Your task to perform on an android device: change text size in settings app Image 0: 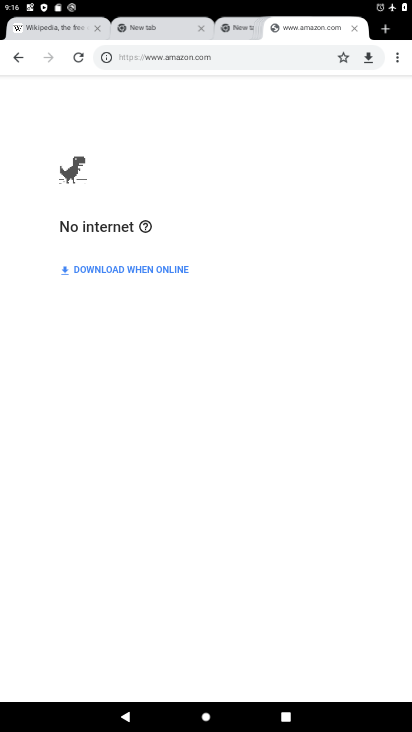
Step 0: press home button
Your task to perform on an android device: change text size in settings app Image 1: 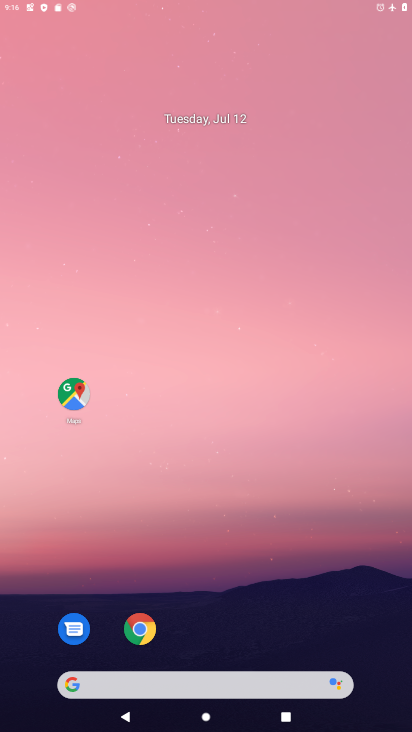
Step 1: drag from (243, 653) to (233, 252)
Your task to perform on an android device: change text size in settings app Image 2: 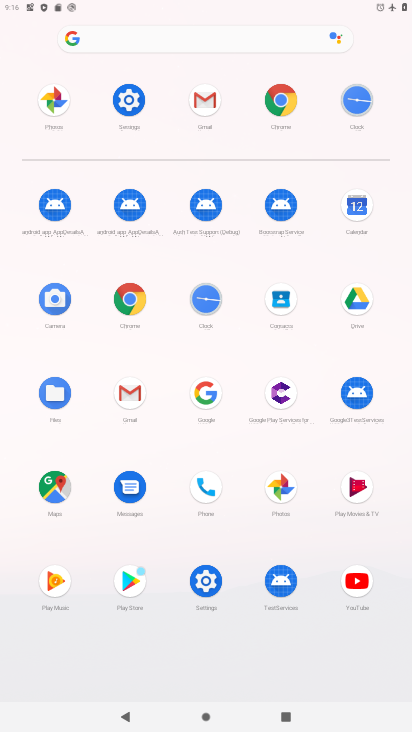
Step 2: click (127, 94)
Your task to perform on an android device: change text size in settings app Image 3: 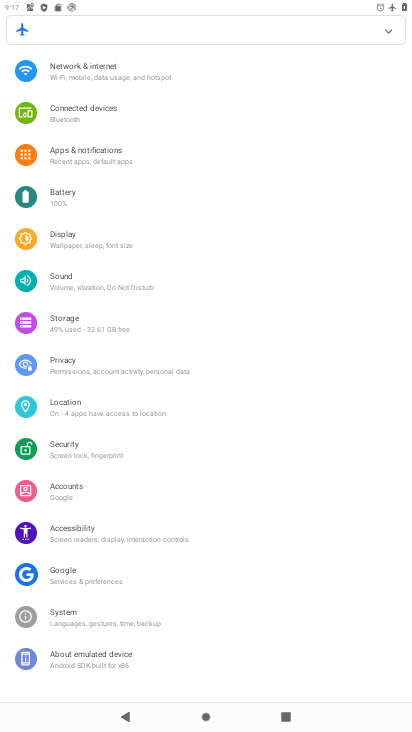
Step 3: drag from (134, 615) to (142, 325)
Your task to perform on an android device: change text size in settings app Image 4: 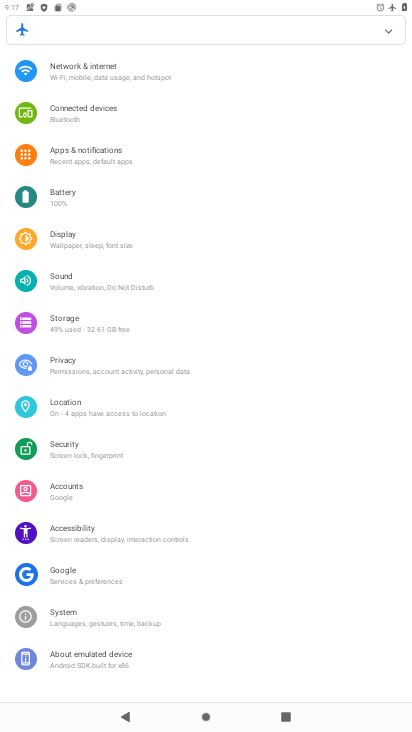
Step 4: click (81, 612)
Your task to perform on an android device: change text size in settings app Image 5: 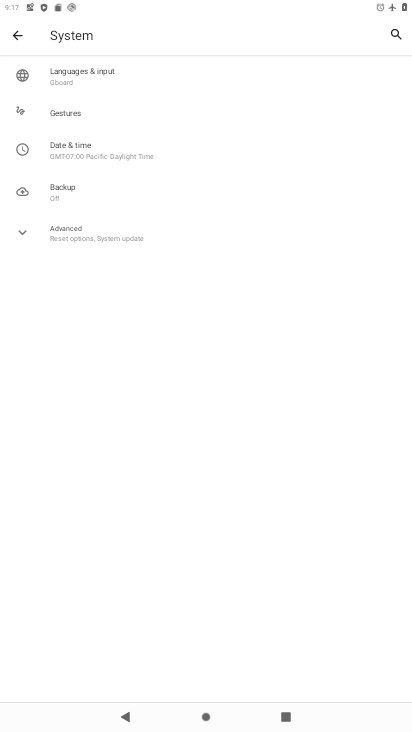
Step 5: click (18, 35)
Your task to perform on an android device: change text size in settings app Image 6: 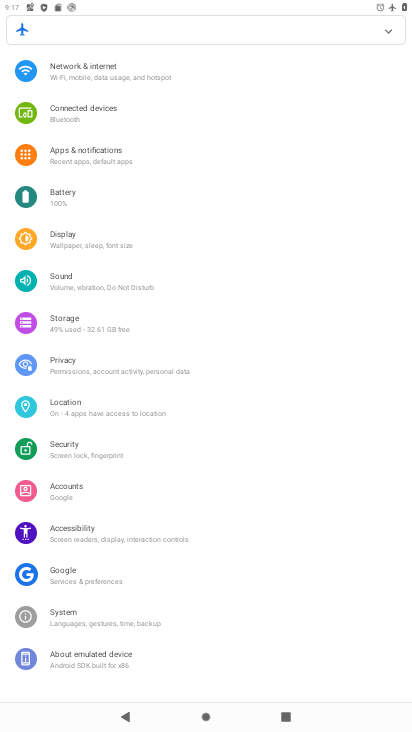
Step 6: click (99, 544)
Your task to perform on an android device: change text size in settings app Image 7: 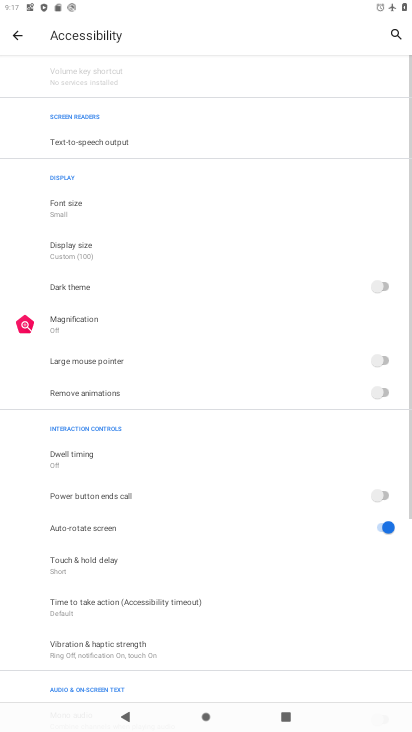
Step 7: click (85, 205)
Your task to perform on an android device: change text size in settings app Image 8: 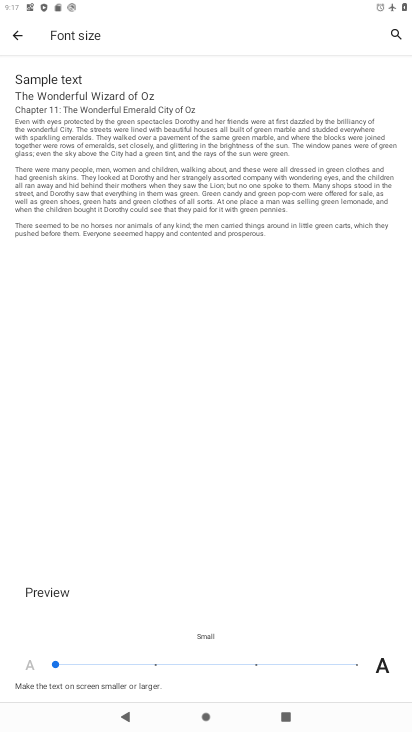
Step 8: click (168, 671)
Your task to perform on an android device: change text size in settings app Image 9: 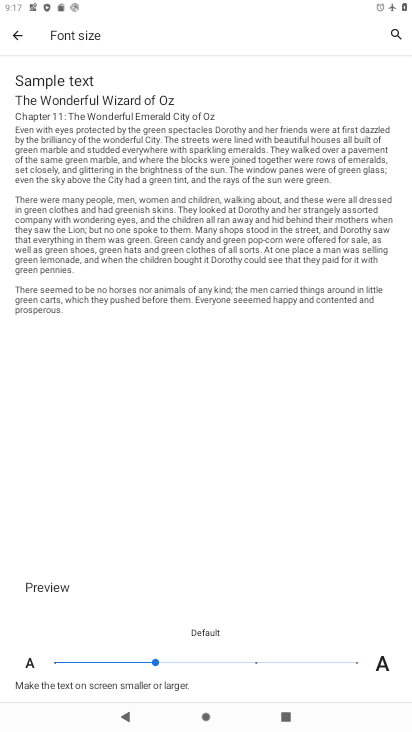
Step 9: click (242, 662)
Your task to perform on an android device: change text size in settings app Image 10: 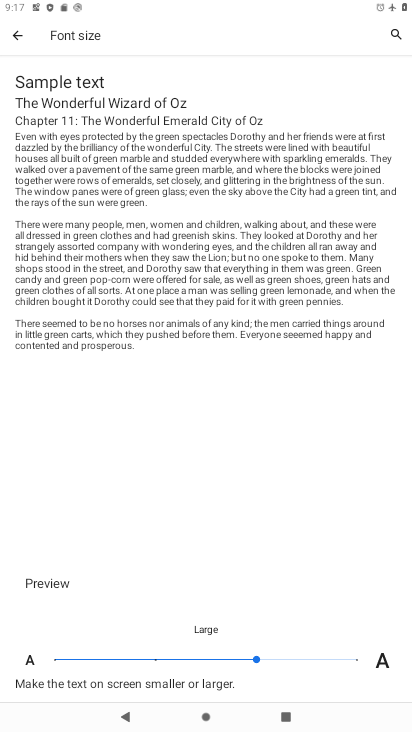
Step 10: task complete